Your task to perform on an android device: add a contact Image 0: 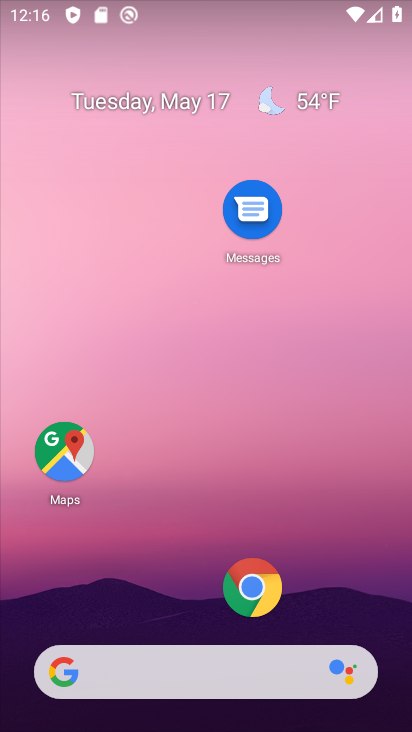
Step 0: drag from (179, 571) to (318, 9)
Your task to perform on an android device: add a contact Image 1: 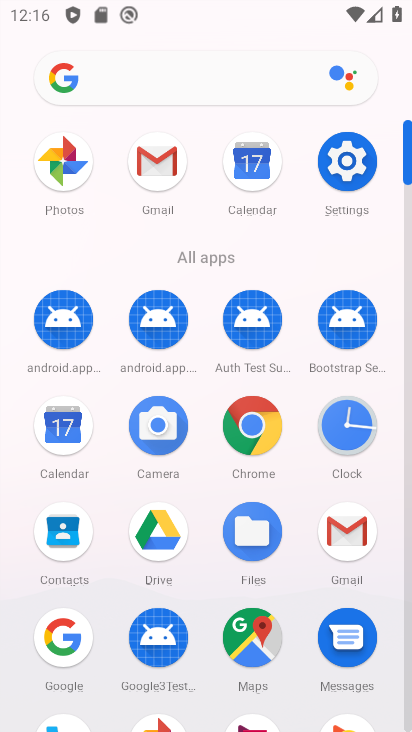
Step 1: click (55, 549)
Your task to perform on an android device: add a contact Image 2: 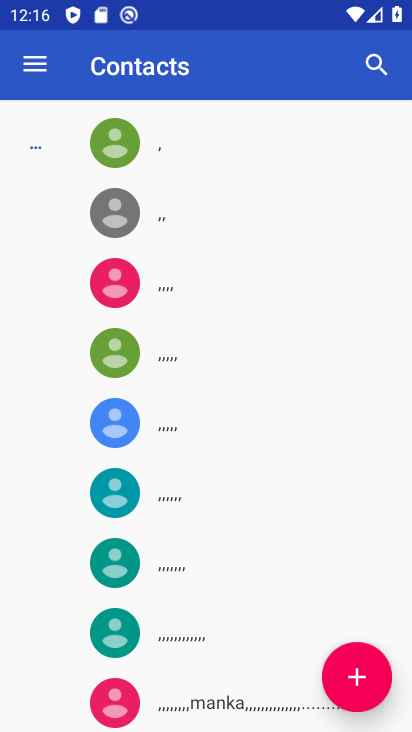
Step 2: click (355, 669)
Your task to perform on an android device: add a contact Image 3: 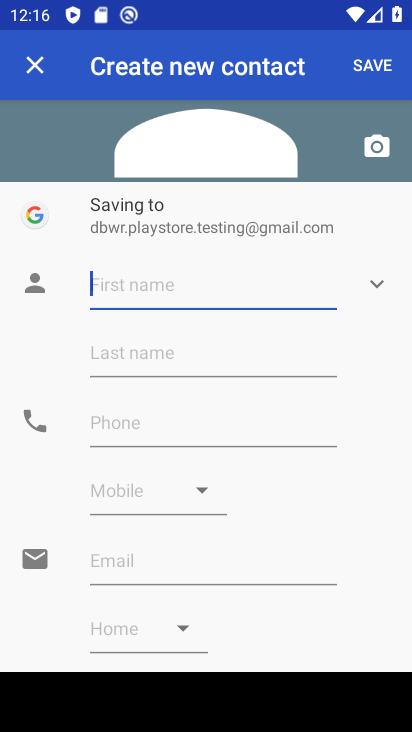
Step 3: type "raider"
Your task to perform on an android device: add a contact Image 4: 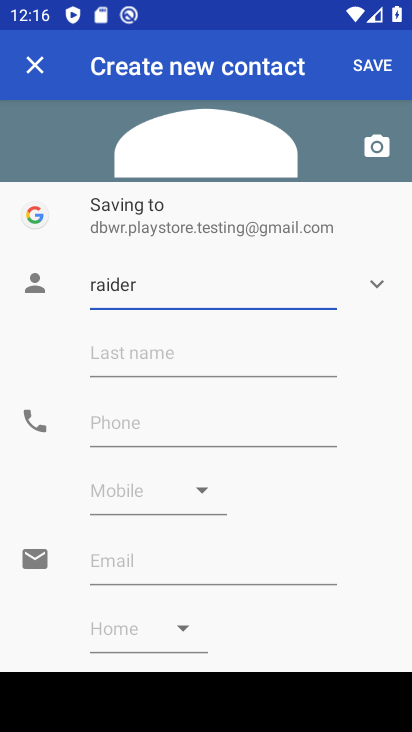
Step 4: click (372, 75)
Your task to perform on an android device: add a contact Image 5: 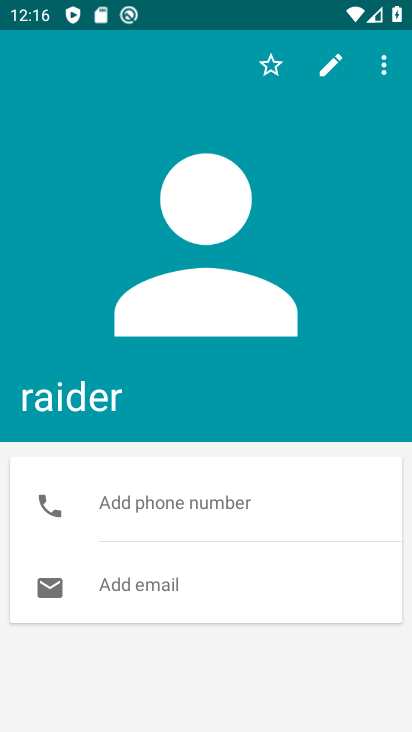
Step 5: task complete